Your task to perform on an android device: Open wifi settings Image 0: 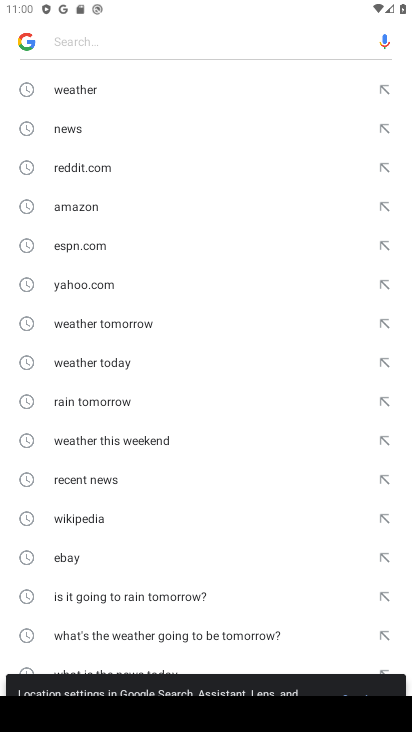
Step 0: press home button
Your task to perform on an android device: Open wifi settings Image 1: 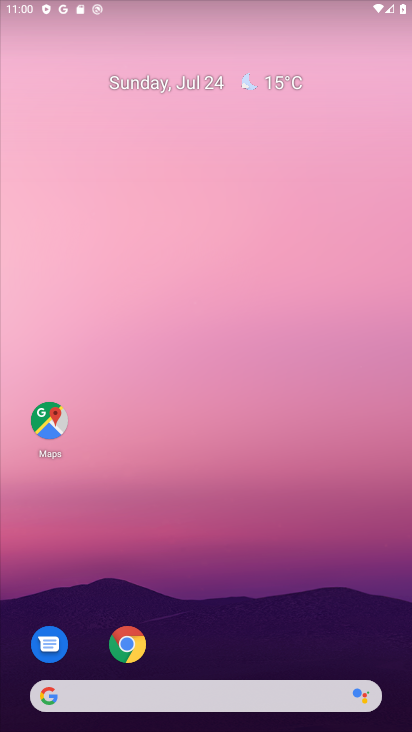
Step 1: drag from (219, 724) to (226, 137)
Your task to perform on an android device: Open wifi settings Image 2: 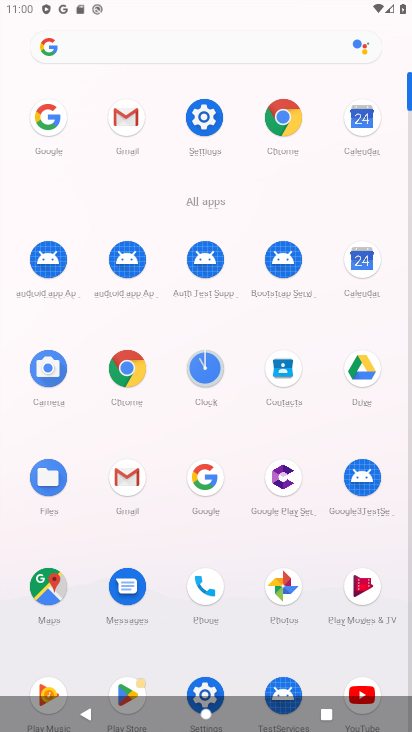
Step 2: click (209, 111)
Your task to perform on an android device: Open wifi settings Image 3: 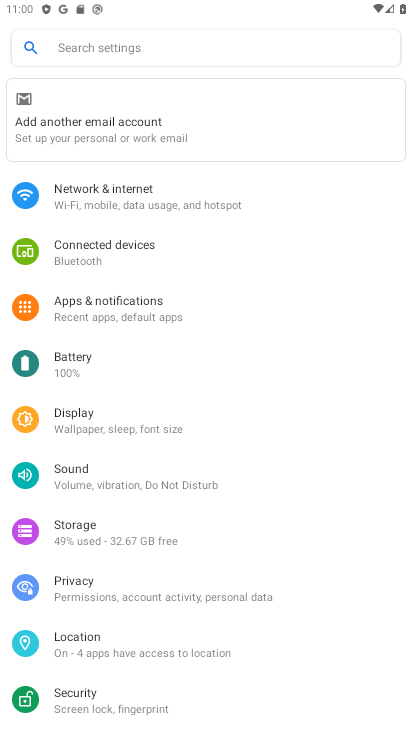
Step 3: click (96, 197)
Your task to perform on an android device: Open wifi settings Image 4: 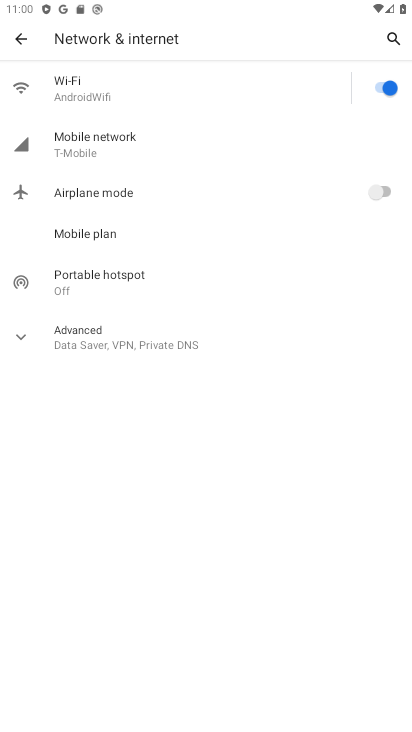
Step 4: click (84, 90)
Your task to perform on an android device: Open wifi settings Image 5: 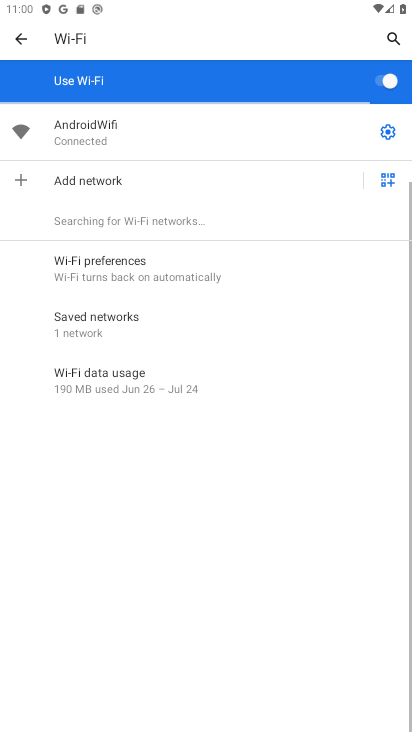
Step 5: task complete